Your task to perform on an android device: Open maps Image 0: 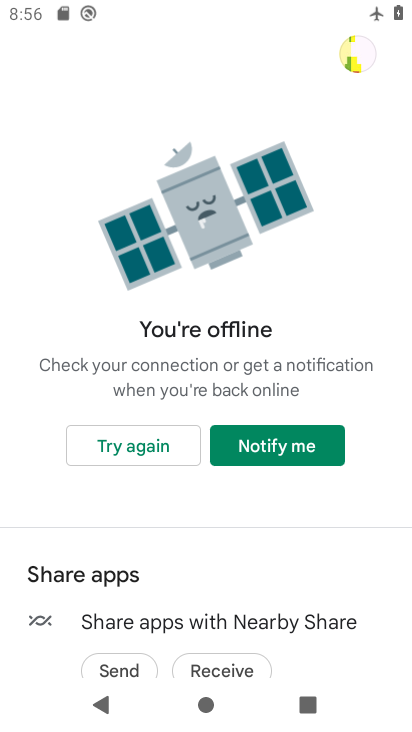
Step 0: press home button
Your task to perform on an android device: Open maps Image 1: 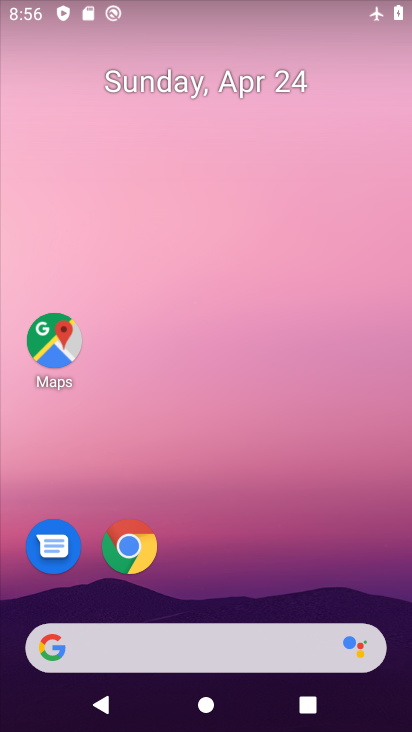
Step 1: click (57, 346)
Your task to perform on an android device: Open maps Image 2: 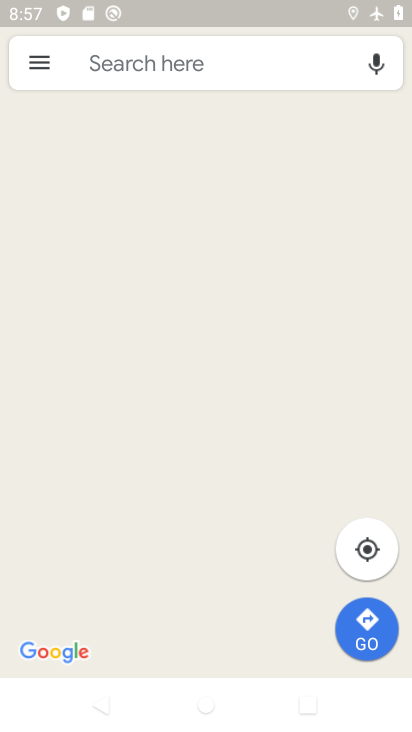
Step 2: task complete